Your task to perform on an android device: choose inbox layout in the gmail app Image 0: 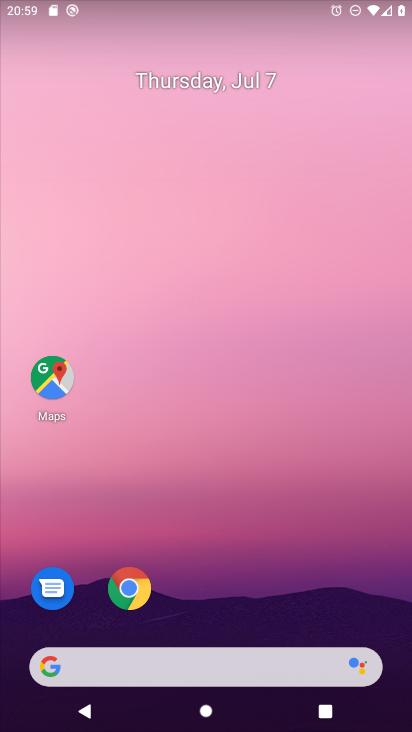
Step 0: drag from (247, 622) to (241, 256)
Your task to perform on an android device: choose inbox layout in the gmail app Image 1: 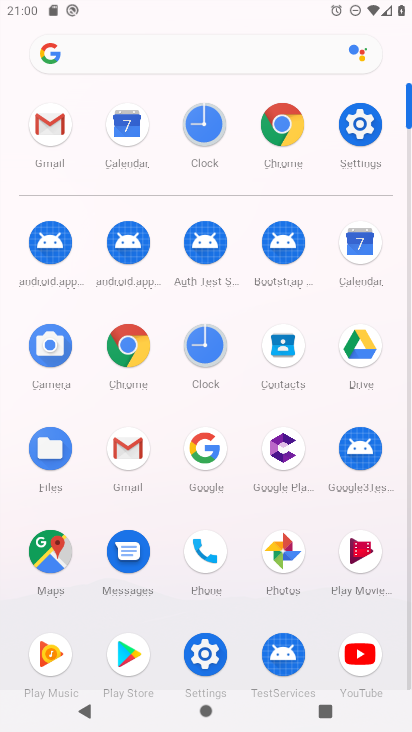
Step 1: click (122, 454)
Your task to perform on an android device: choose inbox layout in the gmail app Image 2: 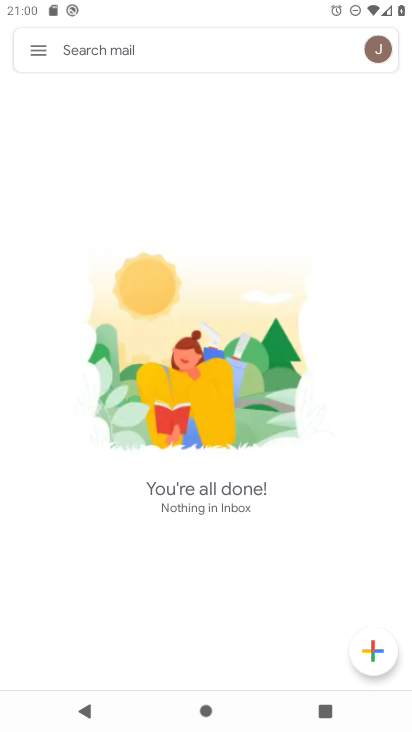
Step 2: click (29, 49)
Your task to perform on an android device: choose inbox layout in the gmail app Image 3: 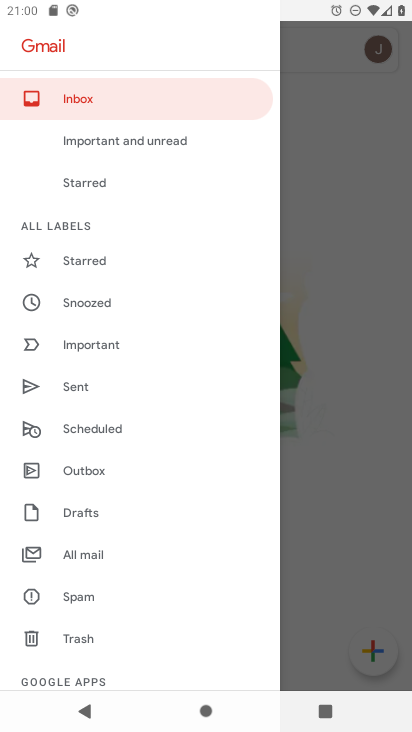
Step 3: click (96, 94)
Your task to perform on an android device: choose inbox layout in the gmail app Image 4: 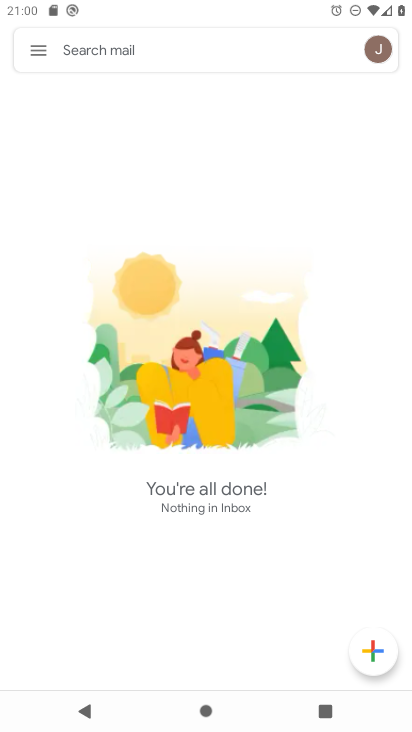
Step 4: task complete